Your task to perform on an android device: Open the calendar app, open the side menu, and click the "Day" option Image 0: 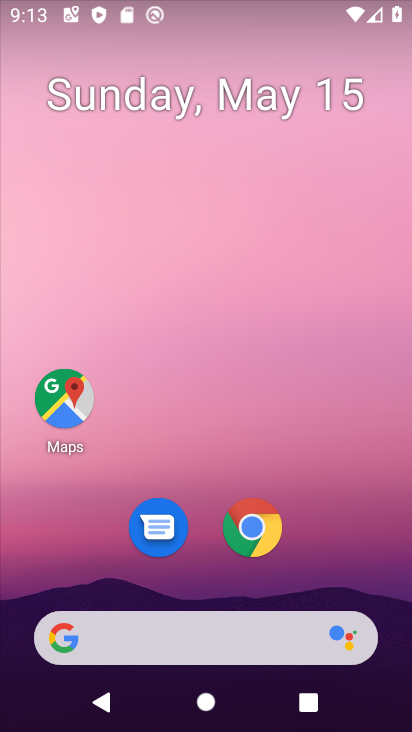
Step 0: drag from (387, 596) to (297, 99)
Your task to perform on an android device: Open the calendar app, open the side menu, and click the "Day" option Image 1: 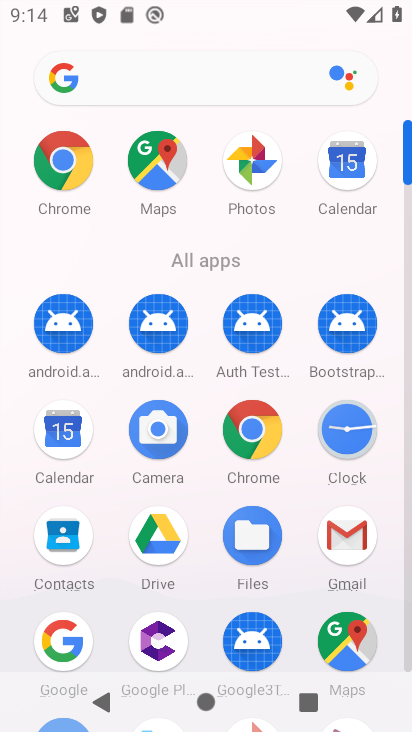
Step 1: click (347, 166)
Your task to perform on an android device: Open the calendar app, open the side menu, and click the "Day" option Image 2: 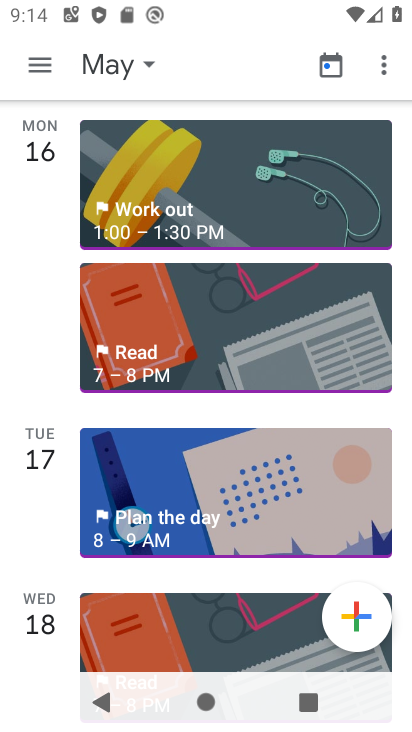
Step 2: click (42, 73)
Your task to perform on an android device: Open the calendar app, open the side menu, and click the "Day" option Image 3: 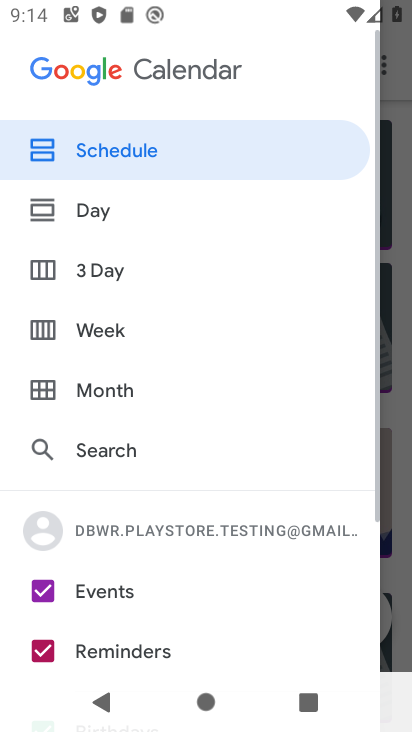
Step 3: click (91, 222)
Your task to perform on an android device: Open the calendar app, open the side menu, and click the "Day" option Image 4: 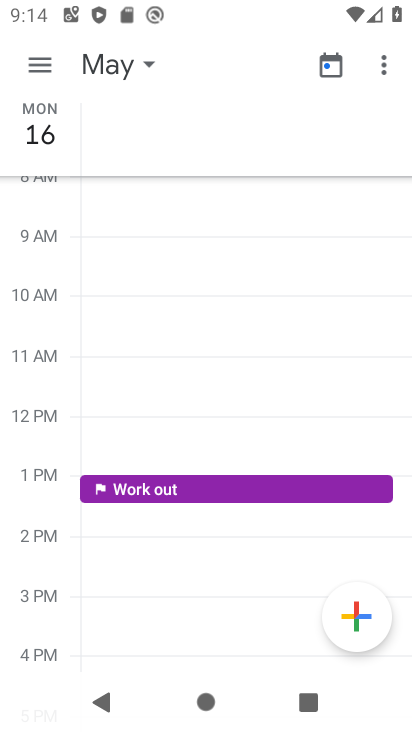
Step 4: task complete